Your task to perform on an android device: Show me recent news Image 0: 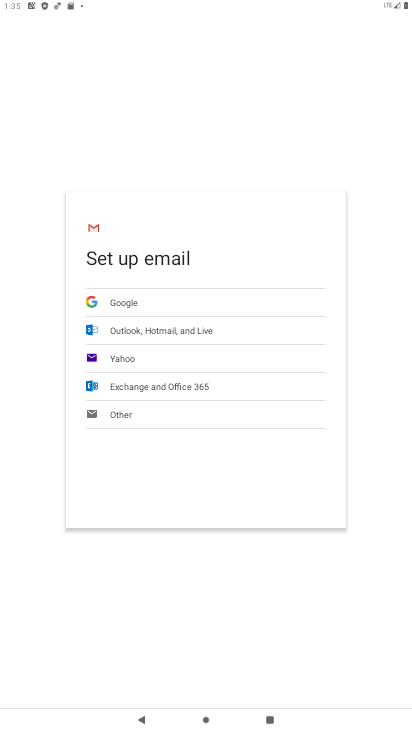
Step 0: press home button
Your task to perform on an android device: Show me recent news Image 1: 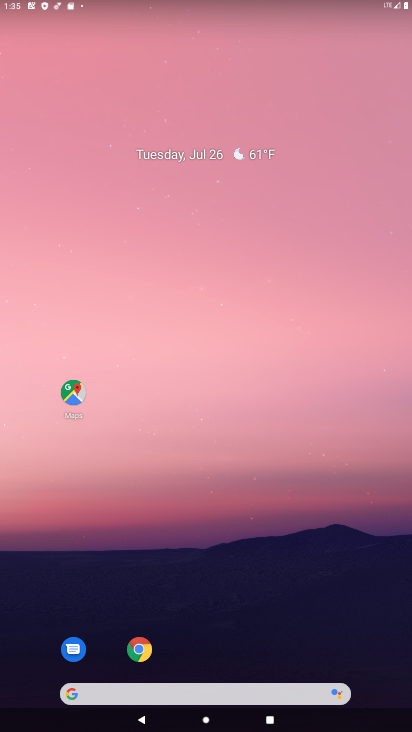
Step 1: click (139, 690)
Your task to perform on an android device: Show me recent news Image 2: 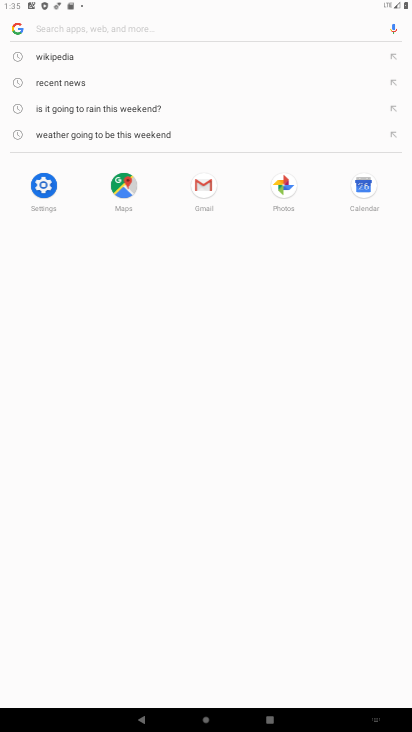
Step 2: click (66, 83)
Your task to perform on an android device: Show me recent news Image 3: 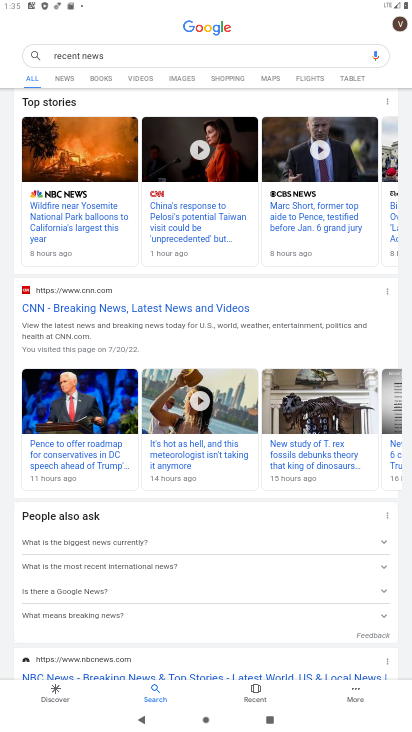
Step 3: task complete